Your task to perform on an android device: Turn off the flashlight Image 0: 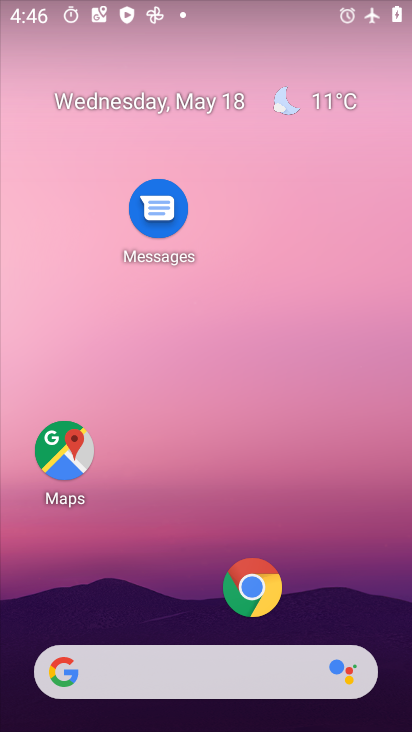
Step 0: drag from (330, 599) to (297, 344)
Your task to perform on an android device: Turn off the flashlight Image 1: 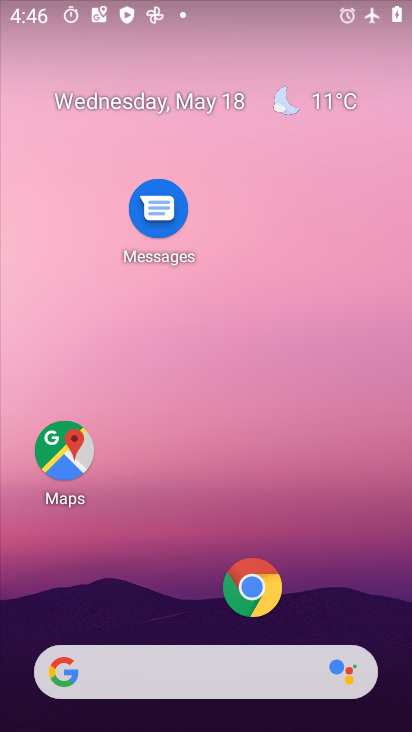
Step 1: task complete